Your task to perform on an android device: refresh tabs in the chrome app Image 0: 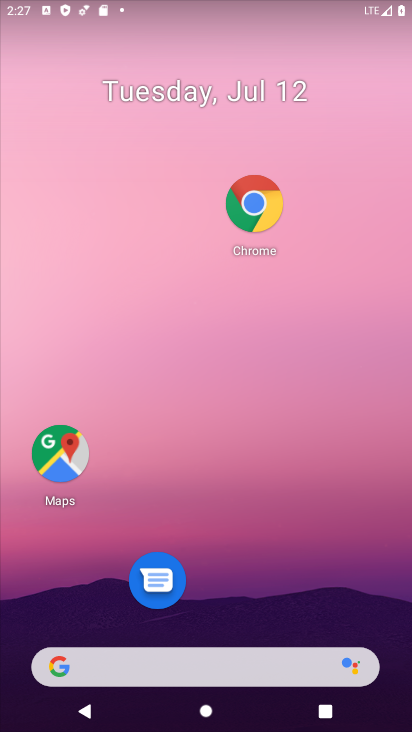
Step 0: click (372, 208)
Your task to perform on an android device: refresh tabs in the chrome app Image 1: 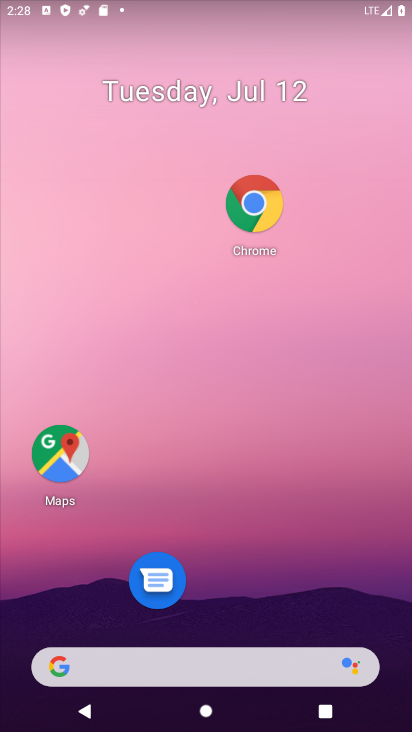
Step 1: click (271, 210)
Your task to perform on an android device: refresh tabs in the chrome app Image 2: 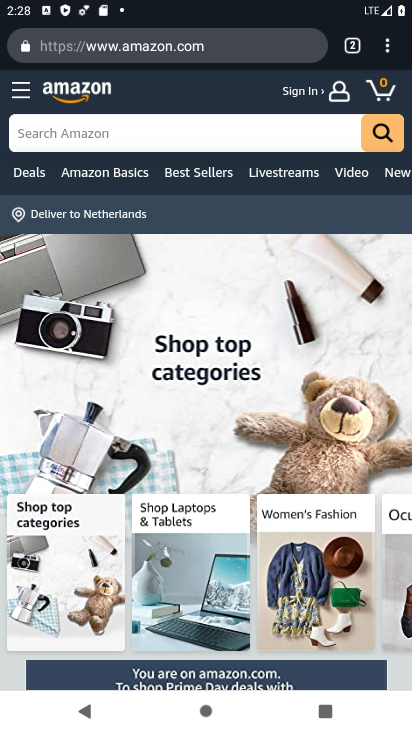
Step 2: click (398, 46)
Your task to perform on an android device: refresh tabs in the chrome app Image 3: 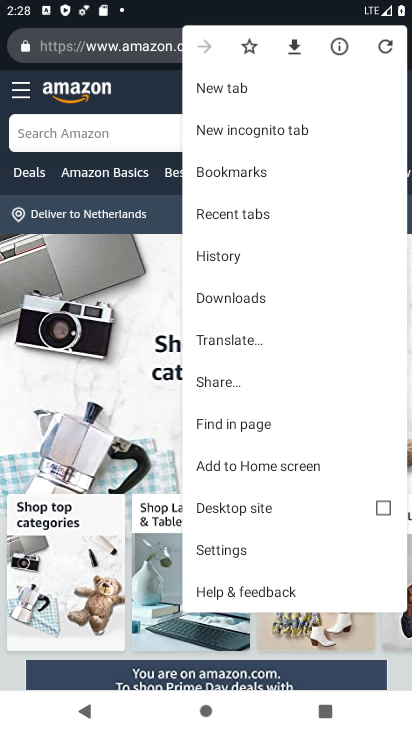
Step 3: click (387, 47)
Your task to perform on an android device: refresh tabs in the chrome app Image 4: 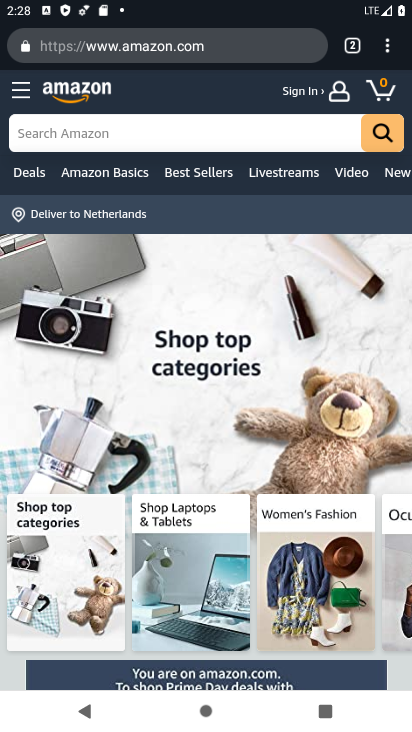
Step 4: task complete